Your task to perform on an android device: Go to Wikipedia Image 0: 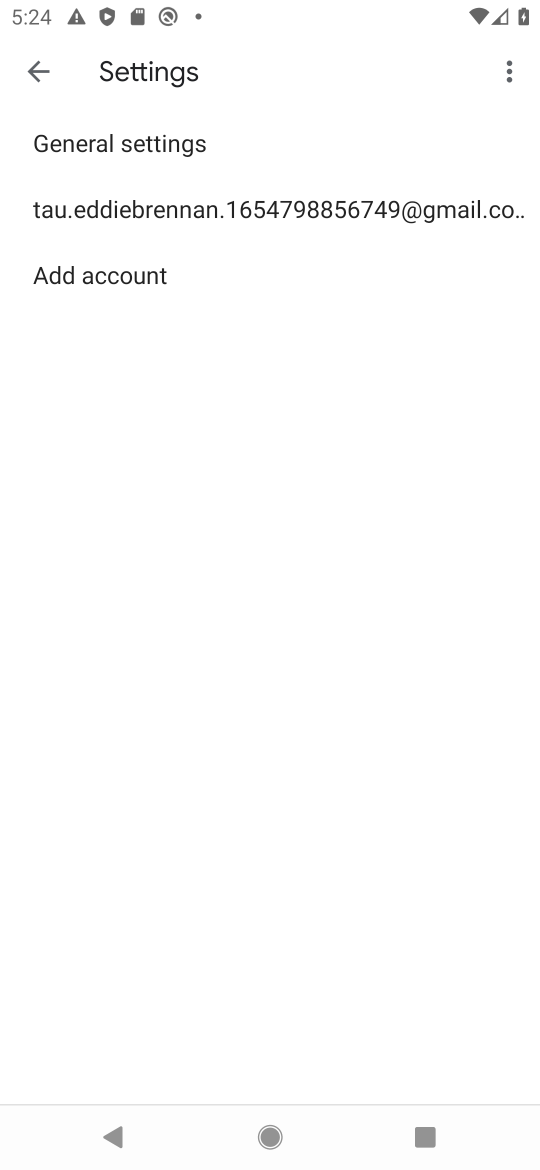
Step 0: press home button
Your task to perform on an android device: Go to Wikipedia Image 1: 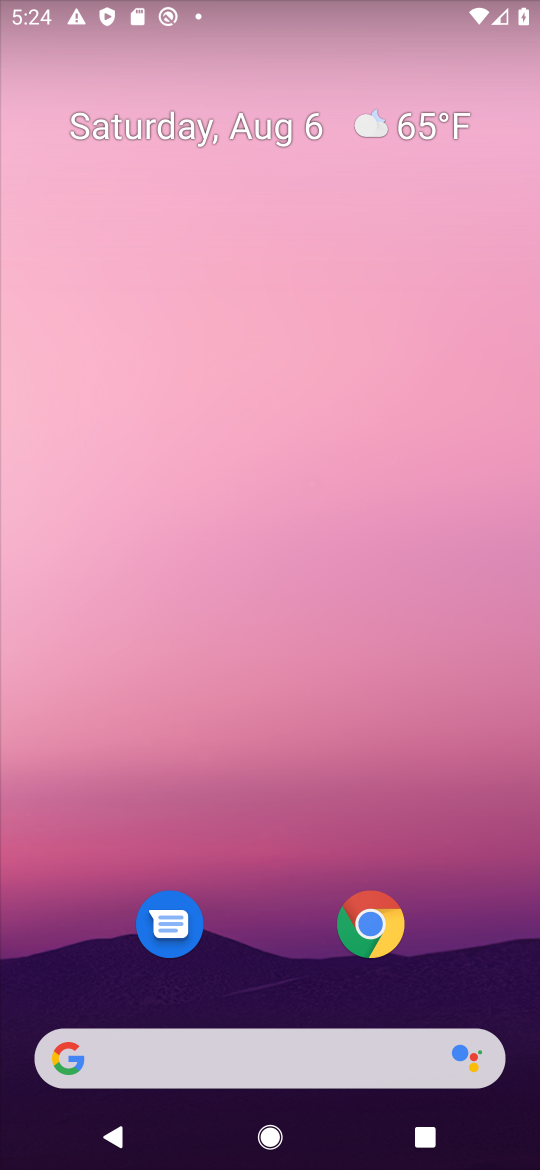
Step 1: click (236, 1037)
Your task to perform on an android device: Go to Wikipedia Image 2: 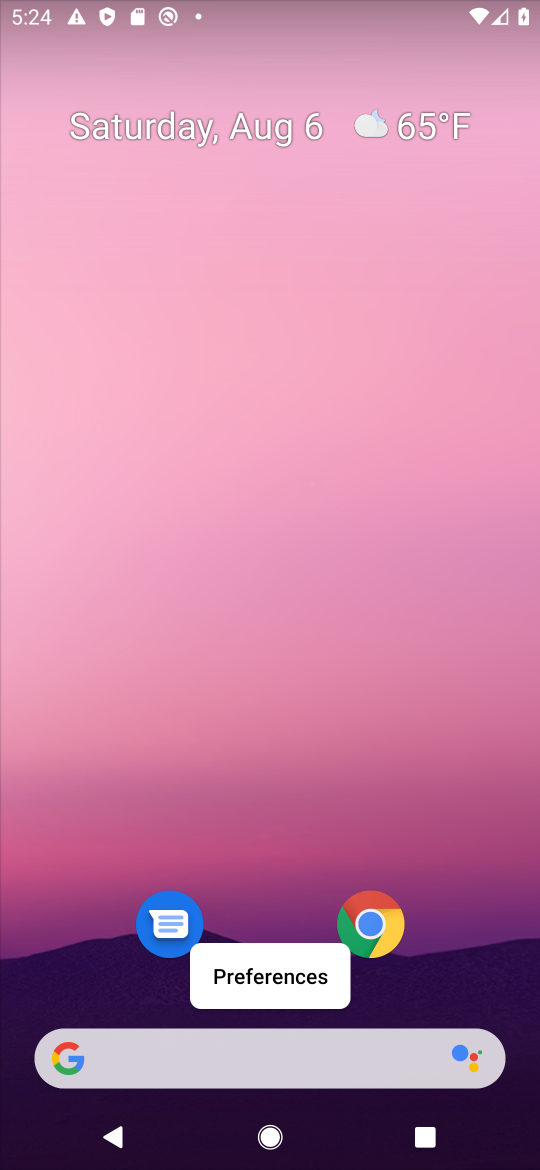
Step 2: click (215, 1066)
Your task to perform on an android device: Go to Wikipedia Image 3: 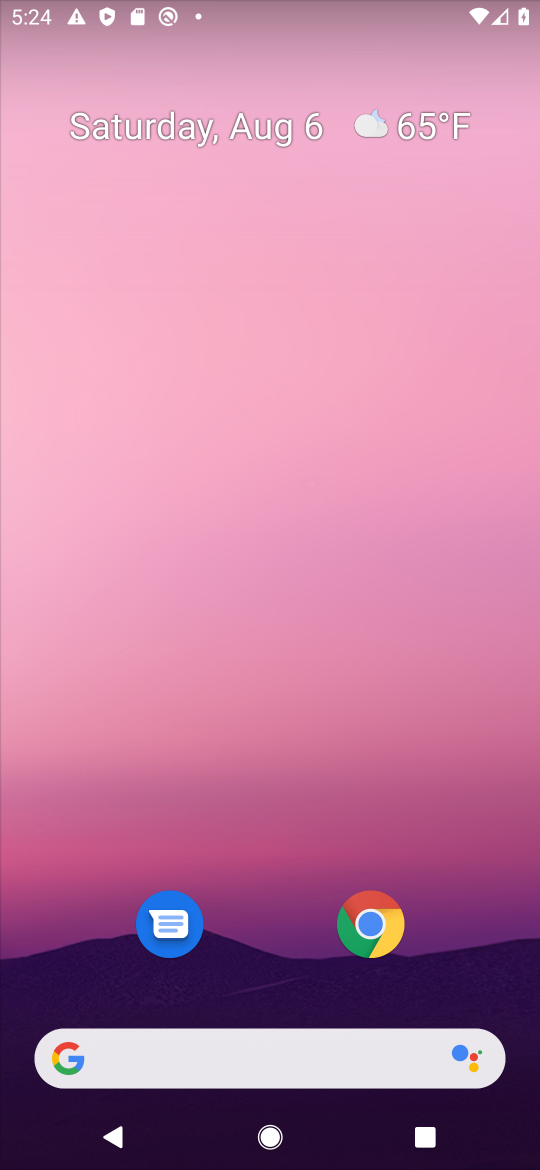
Step 3: drag from (153, 1066) to (393, 125)
Your task to perform on an android device: Go to Wikipedia Image 4: 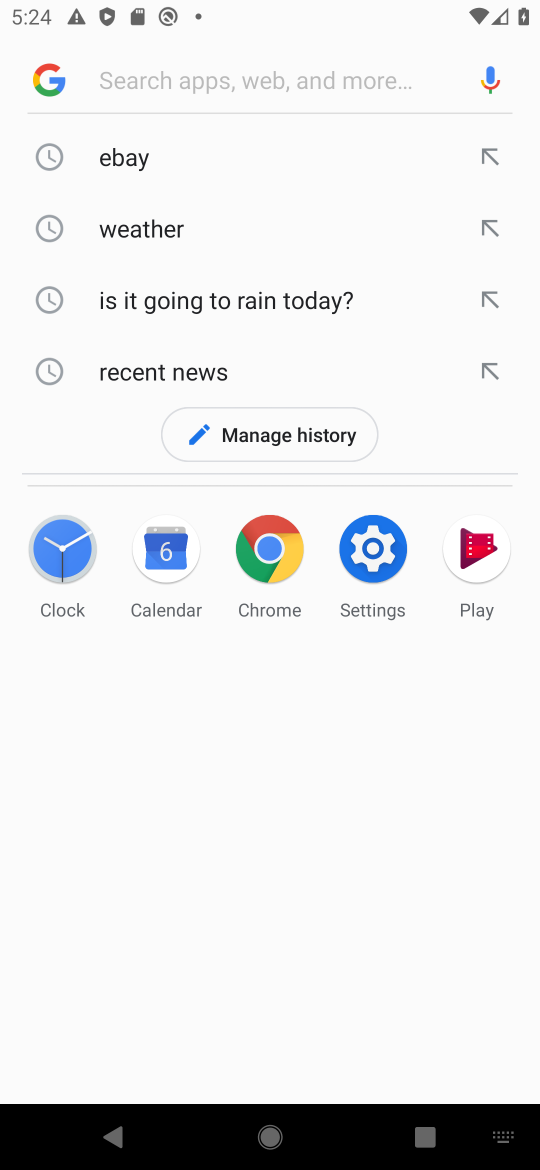
Step 4: type "wikipedia "
Your task to perform on an android device: Go to Wikipedia Image 5: 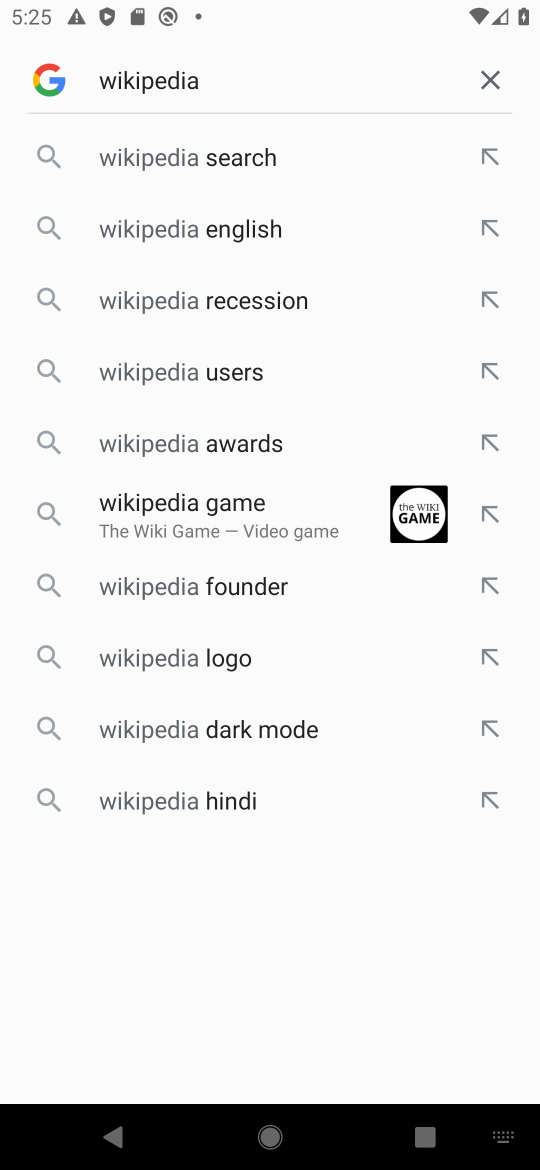
Step 5: click (233, 142)
Your task to perform on an android device: Go to Wikipedia Image 6: 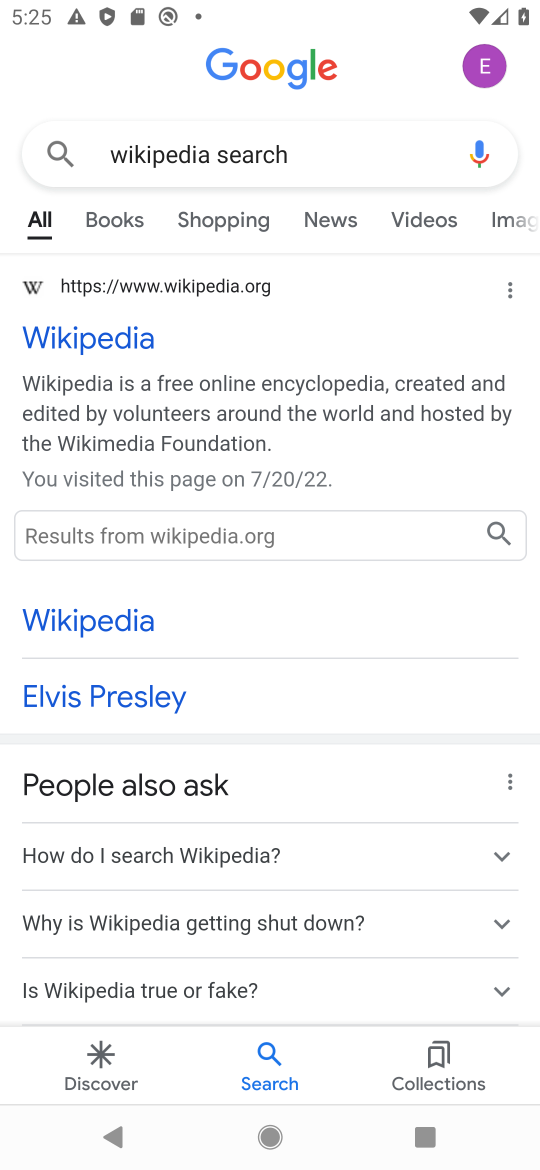
Step 6: click (120, 333)
Your task to perform on an android device: Go to Wikipedia Image 7: 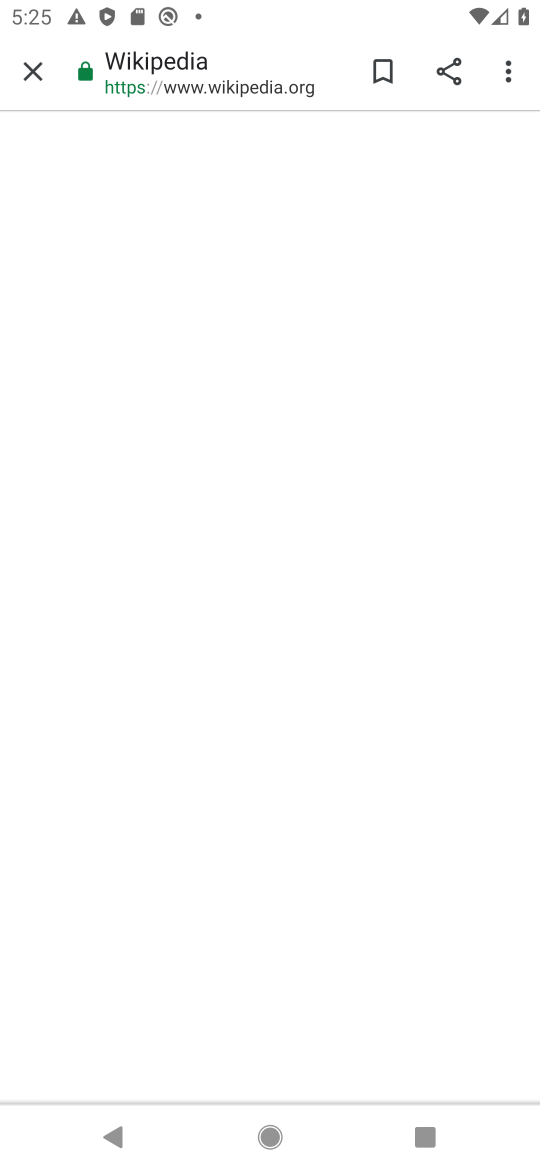
Step 7: task complete